Your task to perform on an android device: Open maps Image 0: 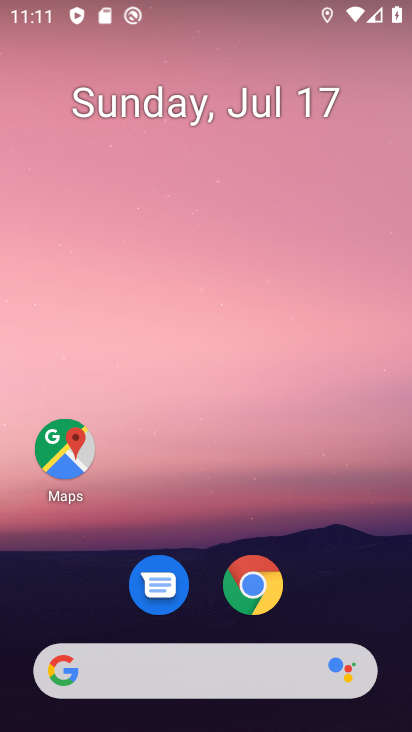
Step 0: click (68, 439)
Your task to perform on an android device: Open maps Image 1: 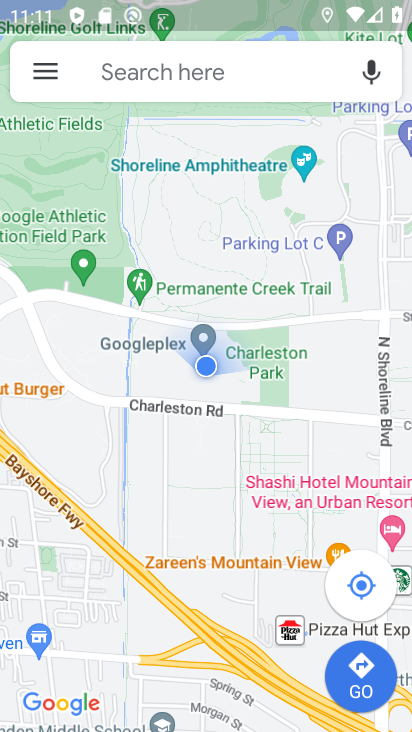
Step 1: task complete